Your task to perform on an android device: Empty the shopping cart on ebay.com. Search for panasonic triple a on ebay.com, select the first entry, and add it to the cart. Image 0: 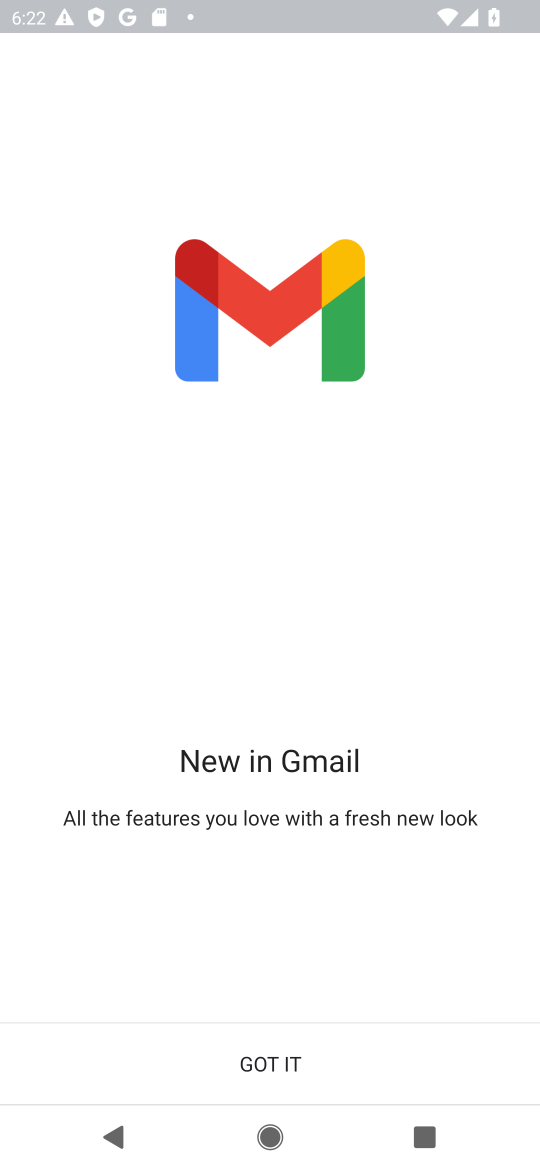
Step 0: press home button
Your task to perform on an android device: Empty the shopping cart on ebay.com. Search for panasonic triple a on ebay.com, select the first entry, and add it to the cart. Image 1: 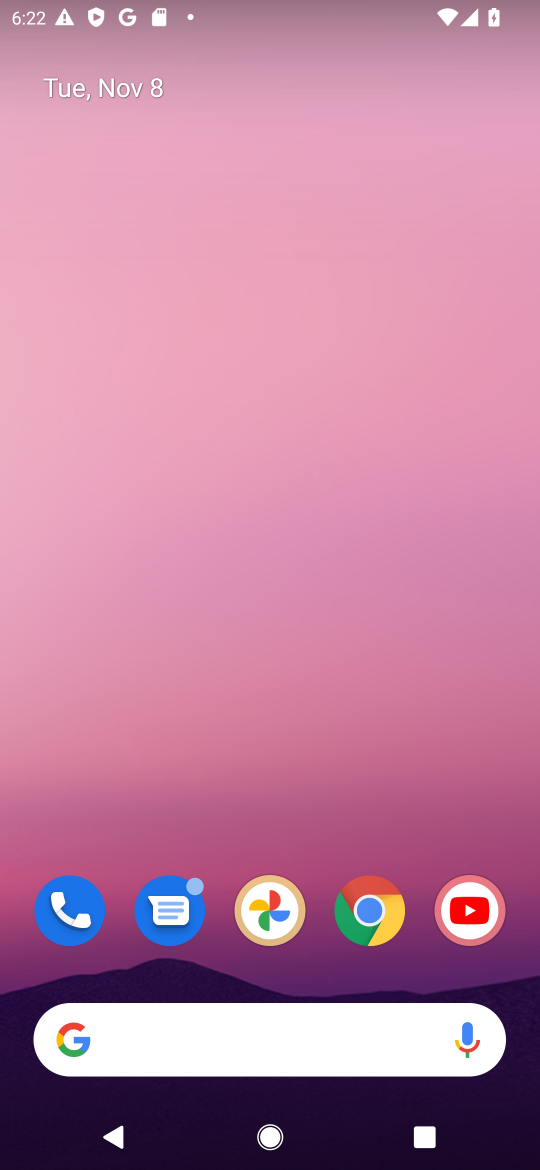
Step 1: click (365, 914)
Your task to perform on an android device: Empty the shopping cart on ebay.com. Search for panasonic triple a on ebay.com, select the first entry, and add it to the cart. Image 2: 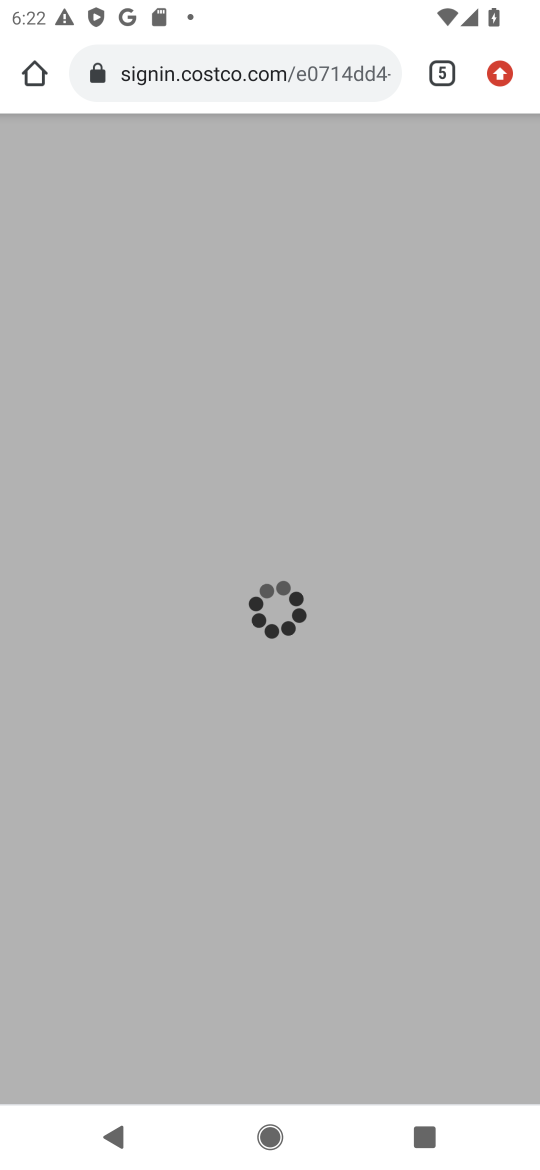
Step 2: click (444, 73)
Your task to perform on an android device: Empty the shopping cart on ebay.com. Search for panasonic triple a on ebay.com, select the first entry, and add it to the cart. Image 3: 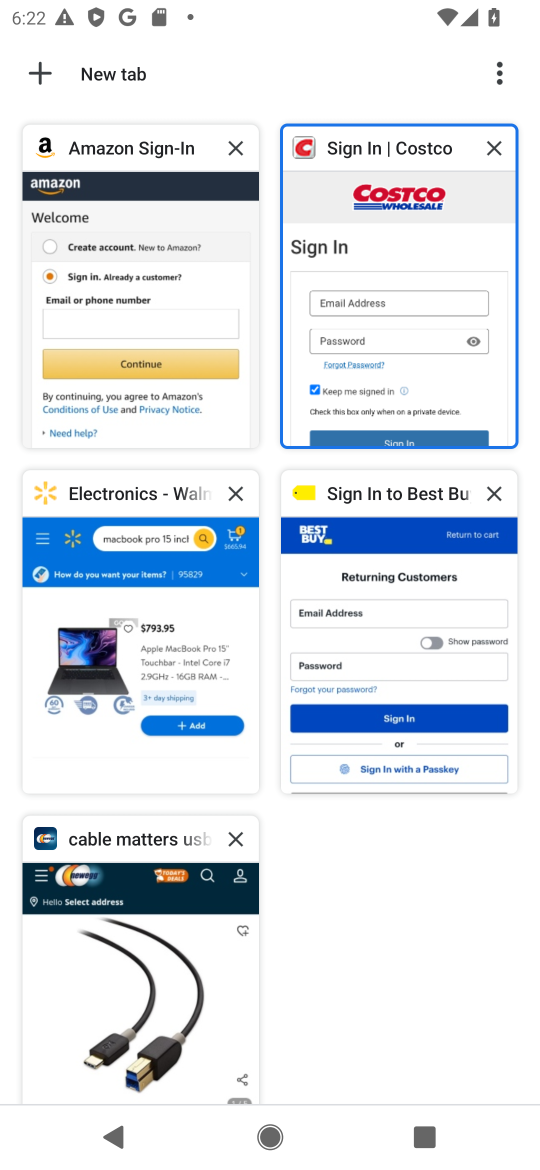
Step 3: click (44, 66)
Your task to perform on an android device: Empty the shopping cart on ebay.com. Search for panasonic triple a on ebay.com, select the first entry, and add it to the cart. Image 4: 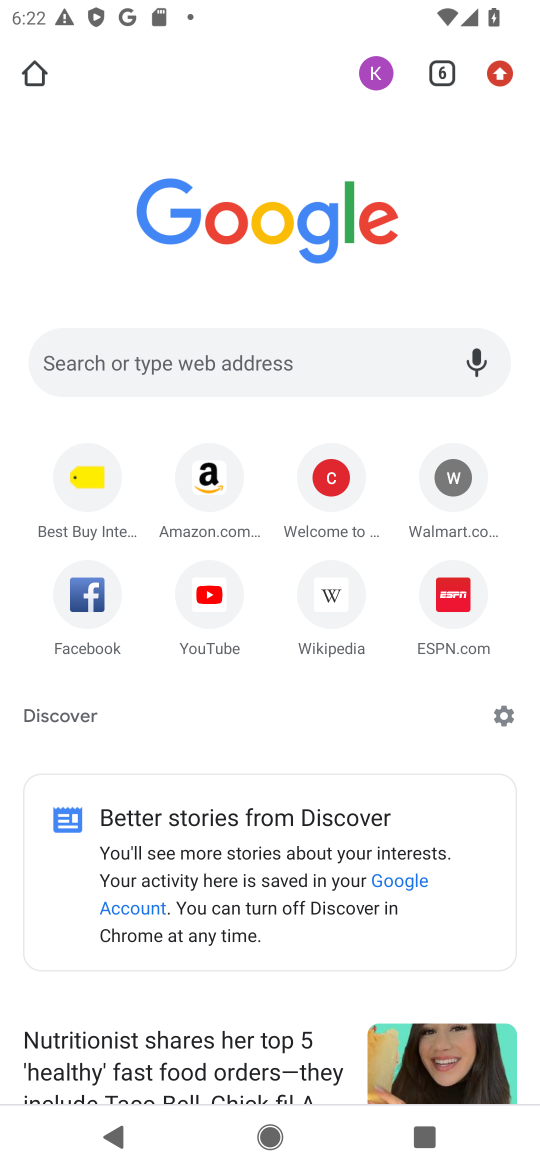
Step 4: click (224, 354)
Your task to perform on an android device: Empty the shopping cart on ebay.com. Search for panasonic triple a on ebay.com, select the first entry, and add it to the cart. Image 5: 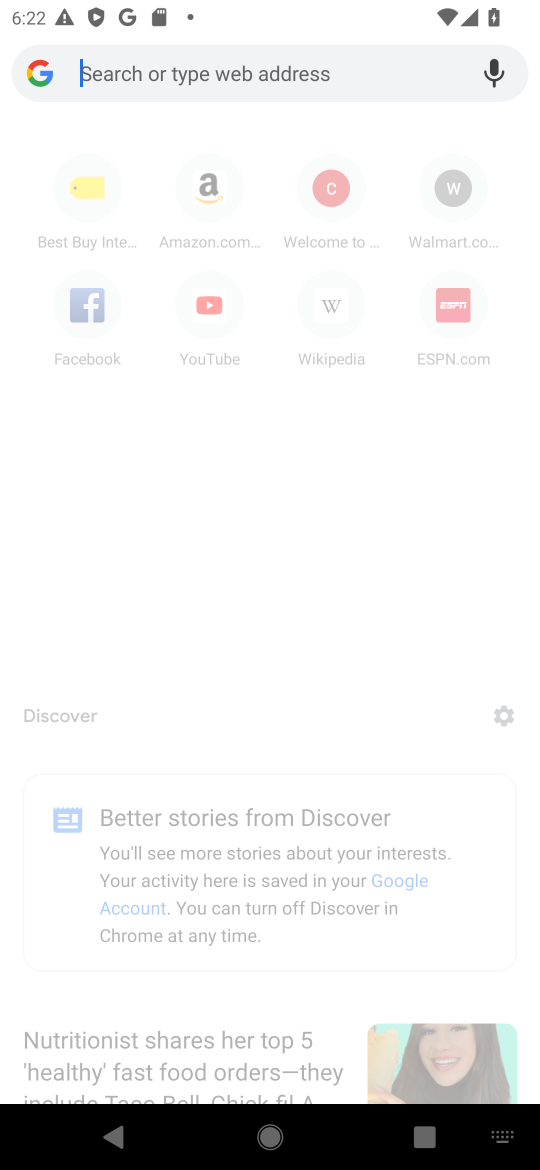
Step 5: type "ebay"
Your task to perform on an android device: Empty the shopping cart on ebay.com. Search for panasonic triple a on ebay.com, select the first entry, and add it to the cart. Image 6: 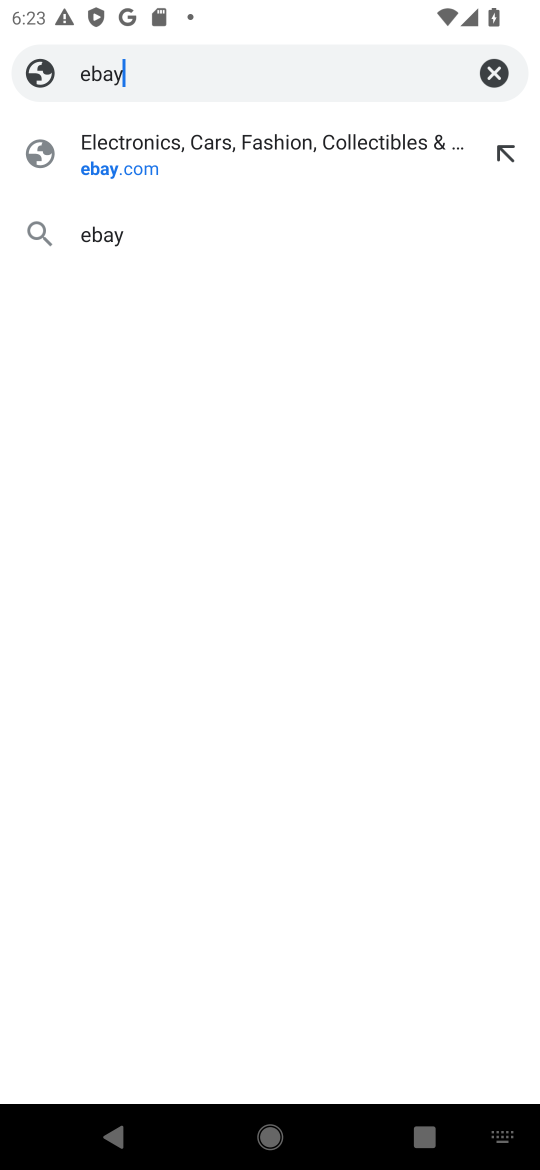
Step 6: click (151, 143)
Your task to perform on an android device: Empty the shopping cart on ebay.com. Search for panasonic triple a on ebay.com, select the first entry, and add it to the cart. Image 7: 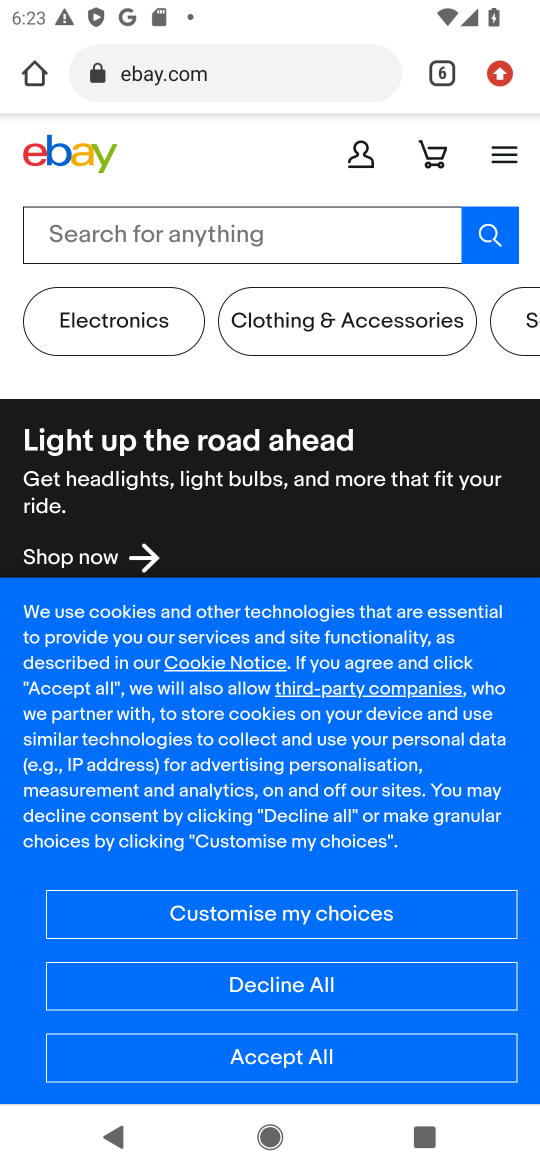
Step 7: click (305, 988)
Your task to perform on an android device: Empty the shopping cart on ebay.com. Search for panasonic triple a on ebay.com, select the first entry, and add it to the cart. Image 8: 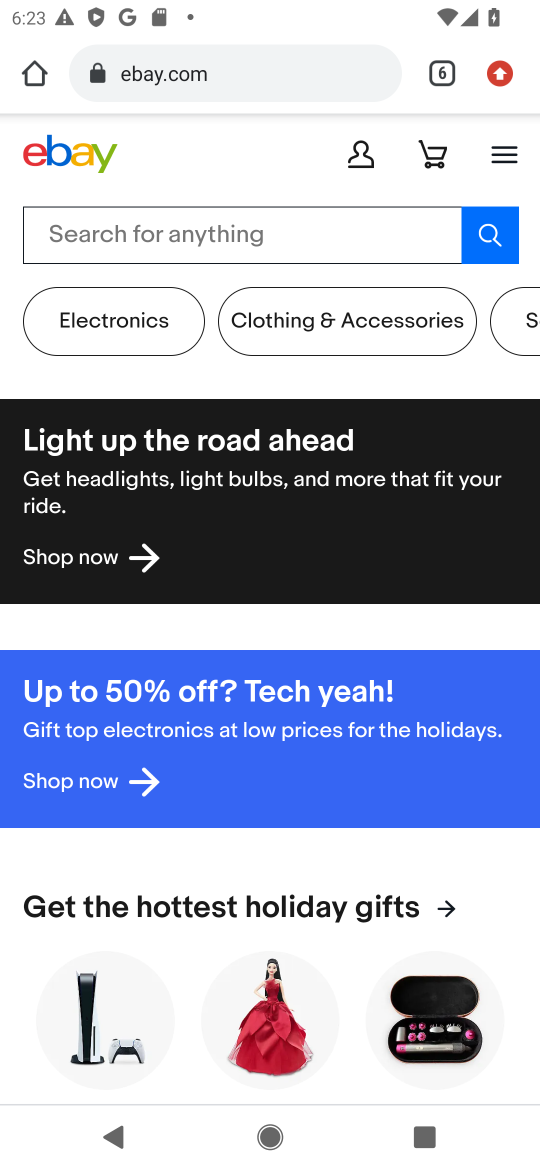
Step 8: click (184, 230)
Your task to perform on an android device: Empty the shopping cart on ebay.com. Search for panasonic triple a on ebay.com, select the first entry, and add it to the cart. Image 9: 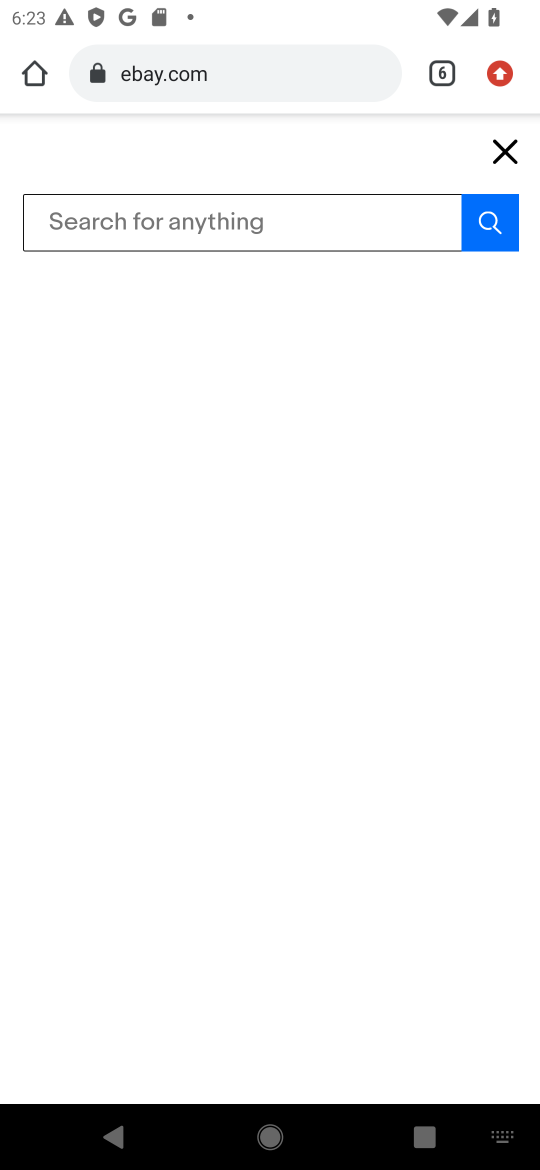
Step 9: type "panasonic triple a battery"
Your task to perform on an android device: Empty the shopping cart on ebay.com. Search for panasonic triple a on ebay.com, select the first entry, and add it to the cart. Image 10: 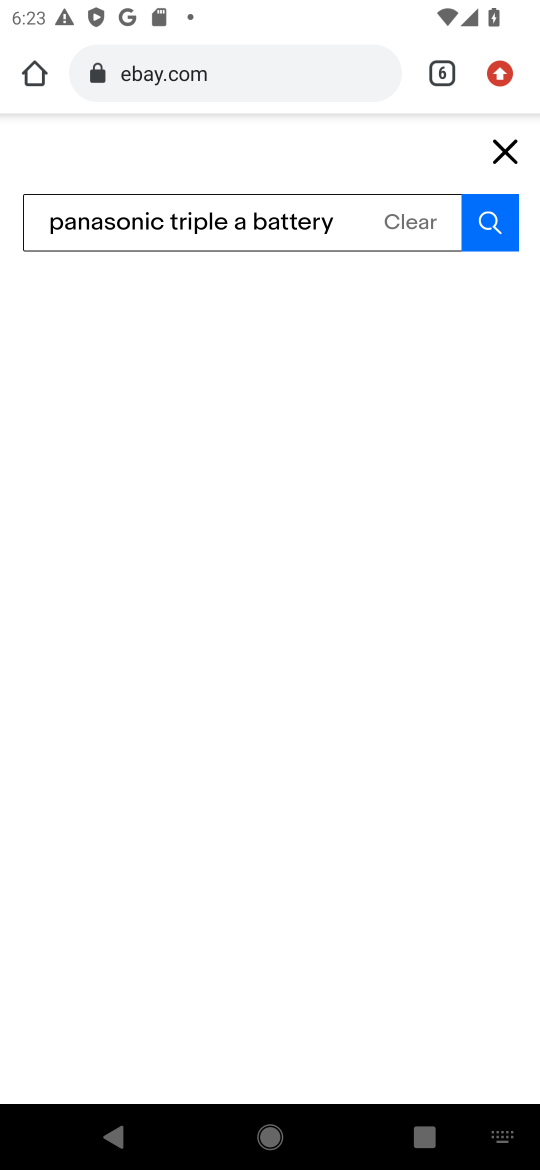
Step 10: click (490, 228)
Your task to perform on an android device: Empty the shopping cart on ebay.com. Search for panasonic triple a on ebay.com, select the first entry, and add it to the cart. Image 11: 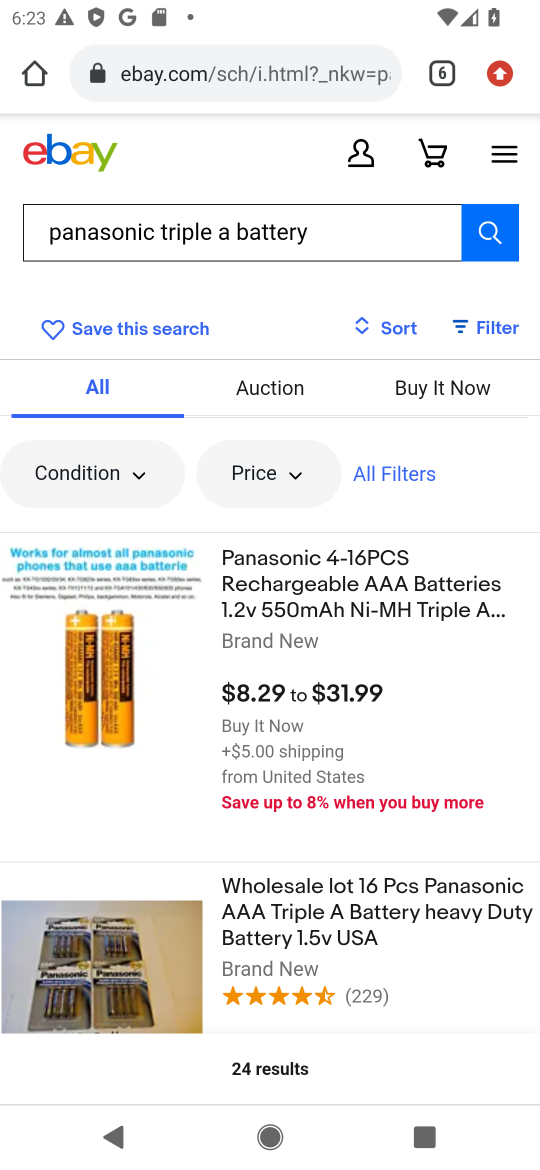
Step 11: click (390, 603)
Your task to perform on an android device: Empty the shopping cart on ebay.com. Search for panasonic triple a on ebay.com, select the first entry, and add it to the cart. Image 12: 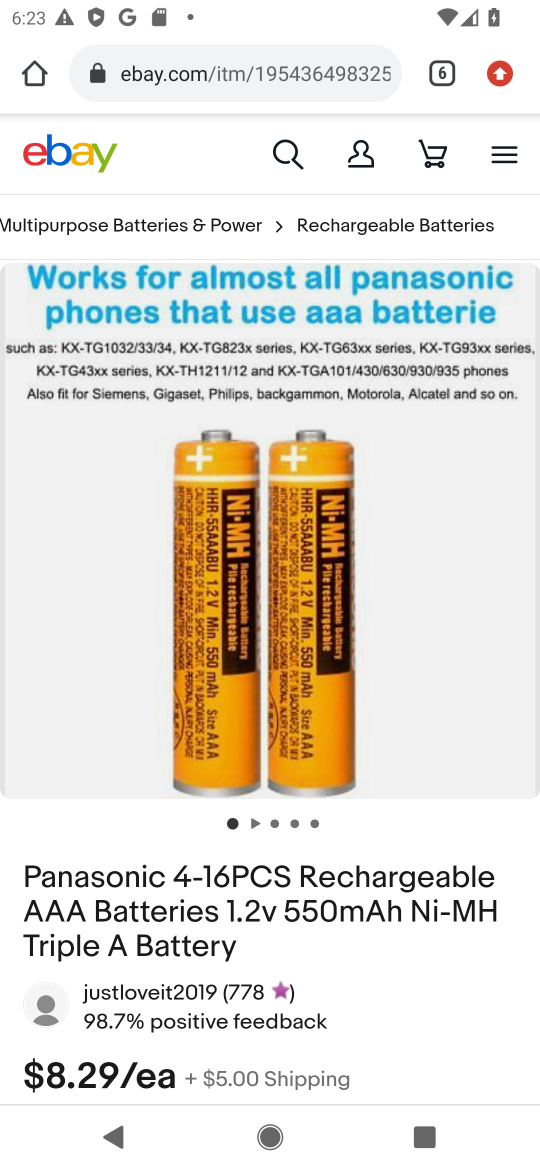
Step 12: drag from (340, 927) to (400, 490)
Your task to perform on an android device: Empty the shopping cart on ebay.com. Search for panasonic triple a on ebay.com, select the first entry, and add it to the cart. Image 13: 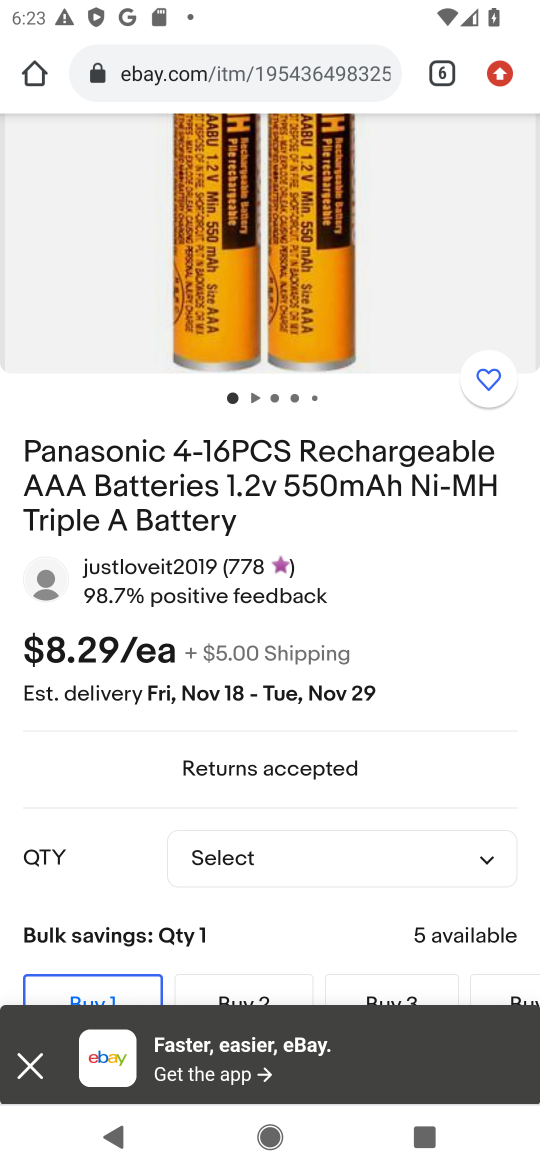
Step 13: click (489, 859)
Your task to perform on an android device: Empty the shopping cart on ebay.com. Search for panasonic triple a on ebay.com, select the first entry, and add it to the cart. Image 14: 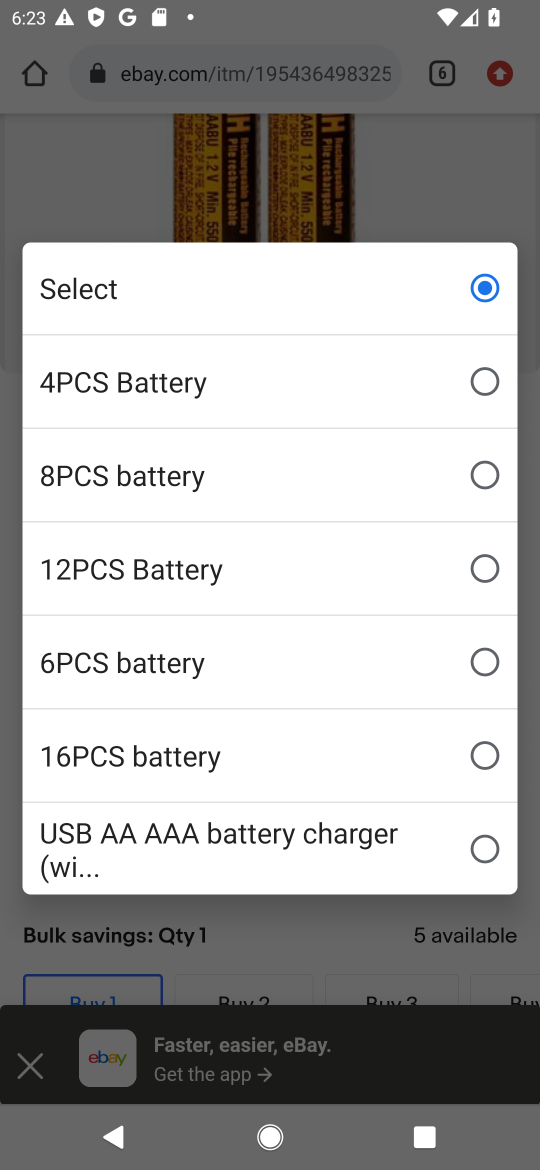
Step 14: click (494, 379)
Your task to perform on an android device: Empty the shopping cart on ebay.com. Search for panasonic triple a on ebay.com, select the first entry, and add it to the cart. Image 15: 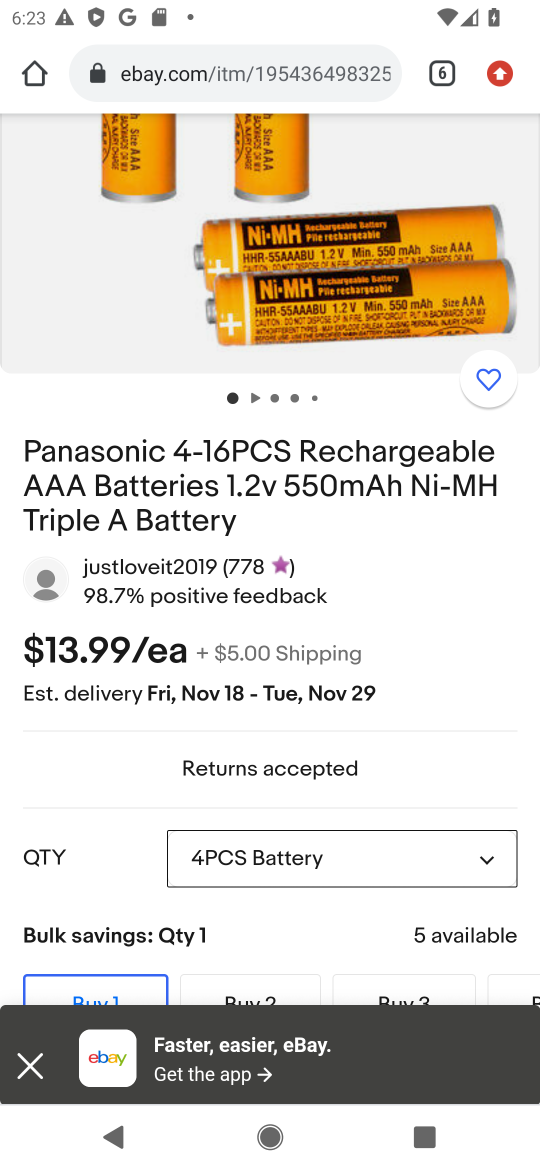
Step 15: drag from (115, 929) to (227, 432)
Your task to perform on an android device: Empty the shopping cart on ebay.com. Search for panasonic triple a on ebay.com, select the first entry, and add it to the cart. Image 16: 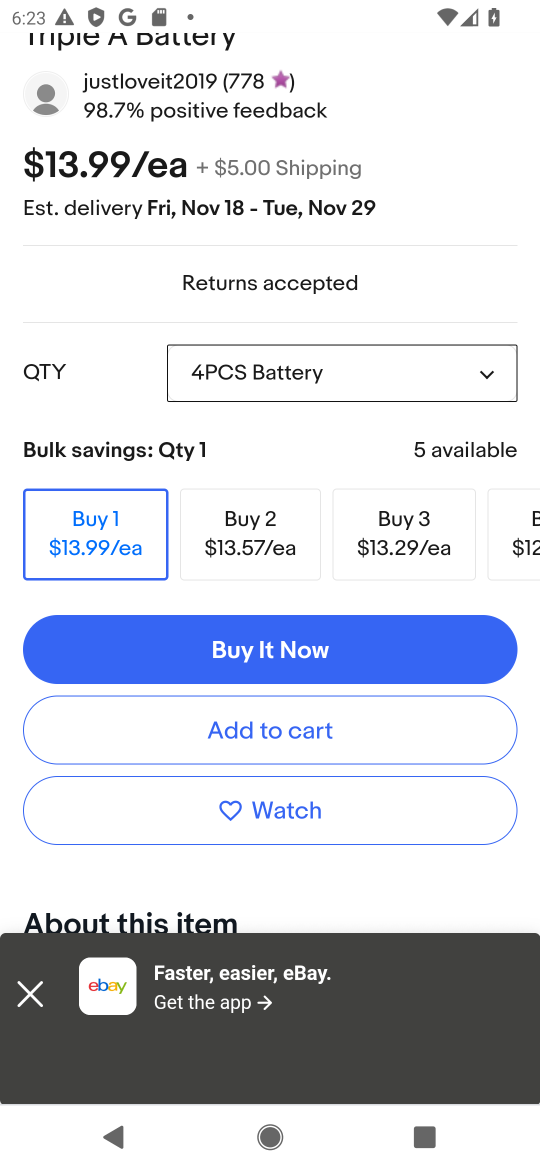
Step 16: click (288, 733)
Your task to perform on an android device: Empty the shopping cart on ebay.com. Search for panasonic triple a on ebay.com, select the first entry, and add it to the cart. Image 17: 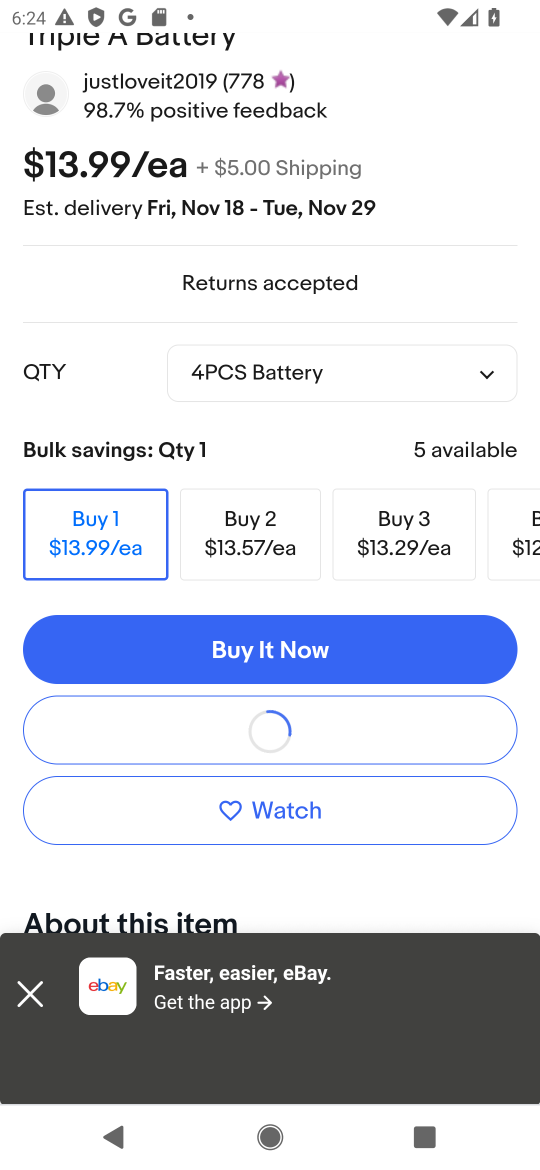
Step 17: task complete